Your task to perform on an android device: turn off improve location accuracy Image 0: 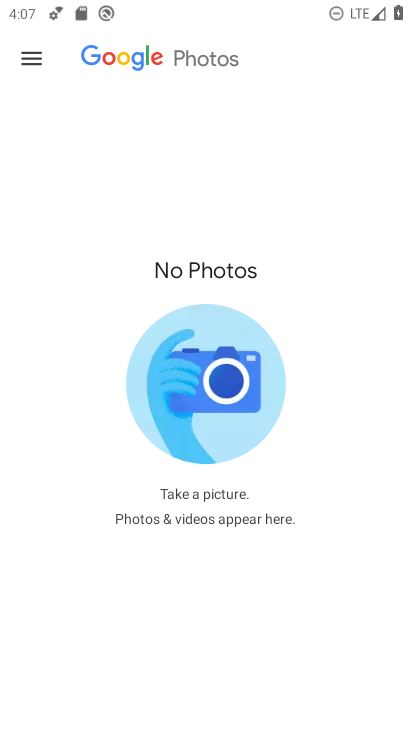
Step 0: press back button
Your task to perform on an android device: turn off improve location accuracy Image 1: 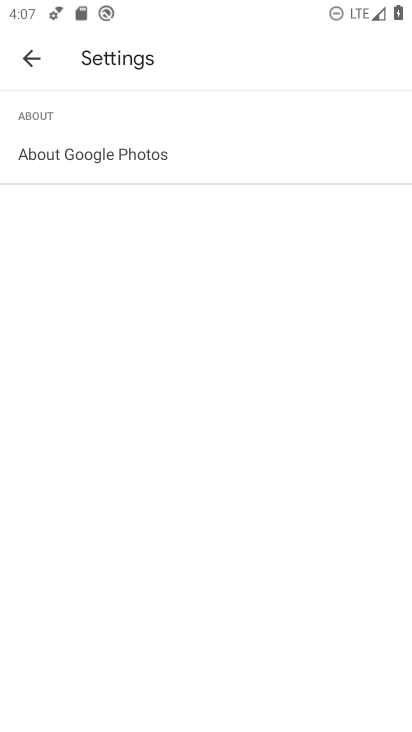
Step 1: press back button
Your task to perform on an android device: turn off improve location accuracy Image 2: 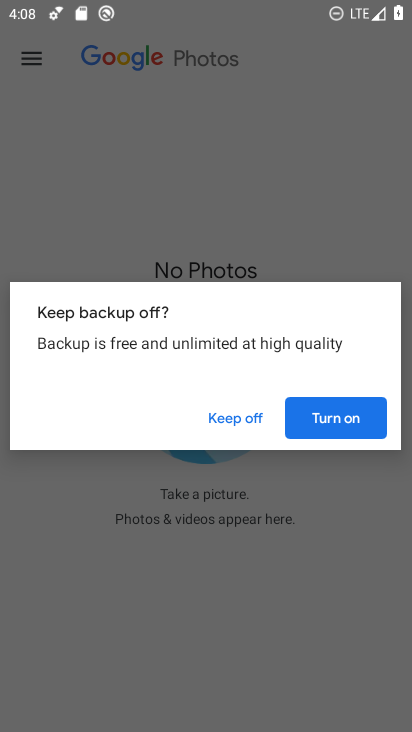
Step 2: click (219, 411)
Your task to perform on an android device: turn off improve location accuracy Image 3: 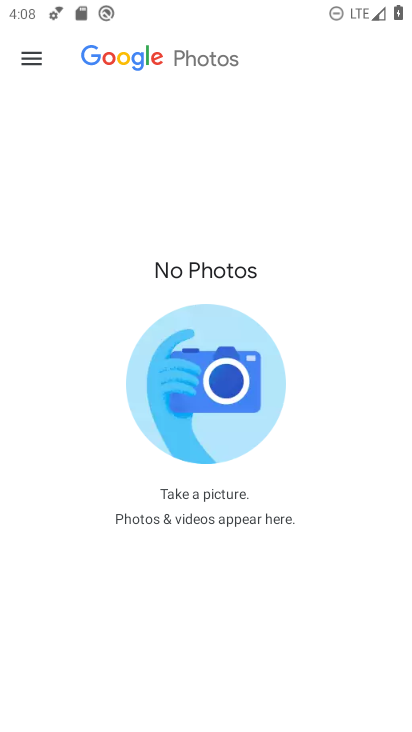
Step 3: press back button
Your task to perform on an android device: turn off improve location accuracy Image 4: 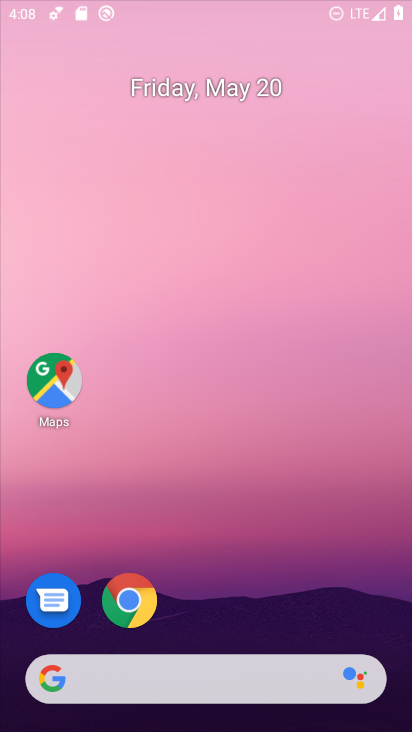
Step 4: press back button
Your task to perform on an android device: turn off improve location accuracy Image 5: 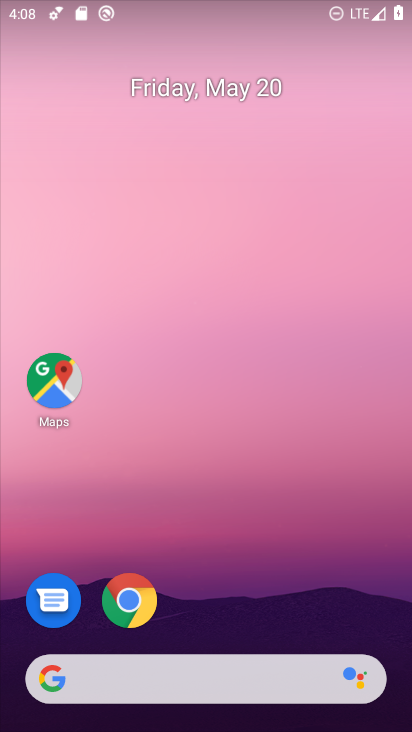
Step 5: drag from (252, 630) to (265, 9)
Your task to perform on an android device: turn off improve location accuracy Image 6: 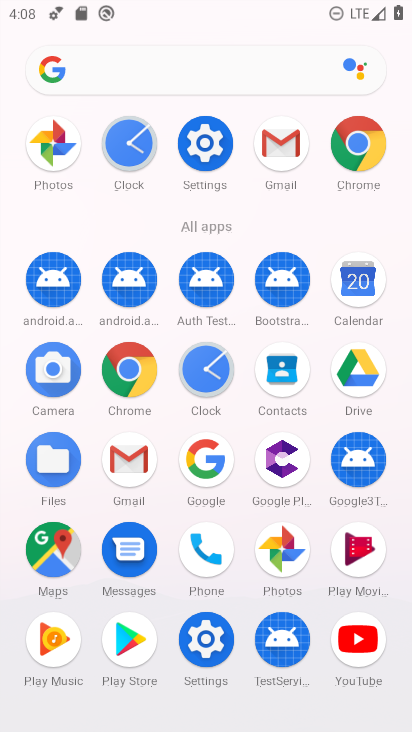
Step 6: click (202, 150)
Your task to perform on an android device: turn off improve location accuracy Image 7: 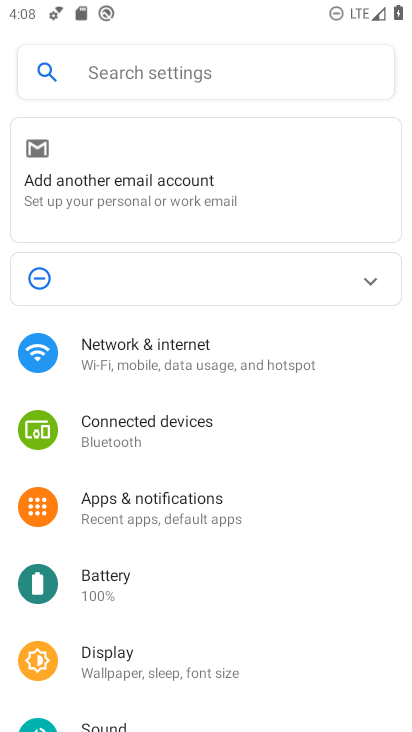
Step 7: drag from (146, 644) to (272, 135)
Your task to perform on an android device: turn off improve location accuracy Image 8: 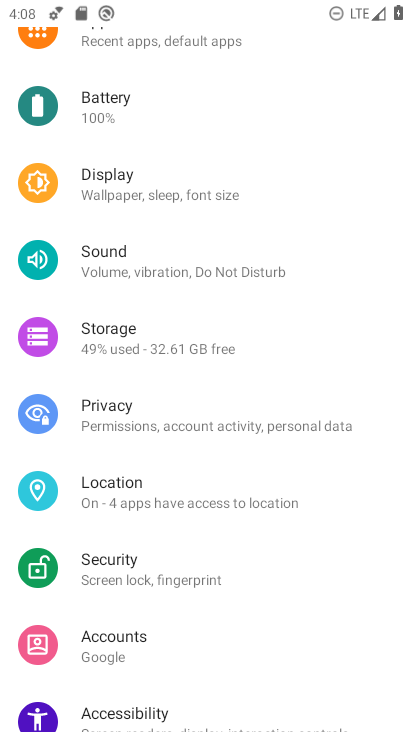
Step 8: click (138, 501)
Your task to perform on an android device: turn off improve location accuracy Image 9: 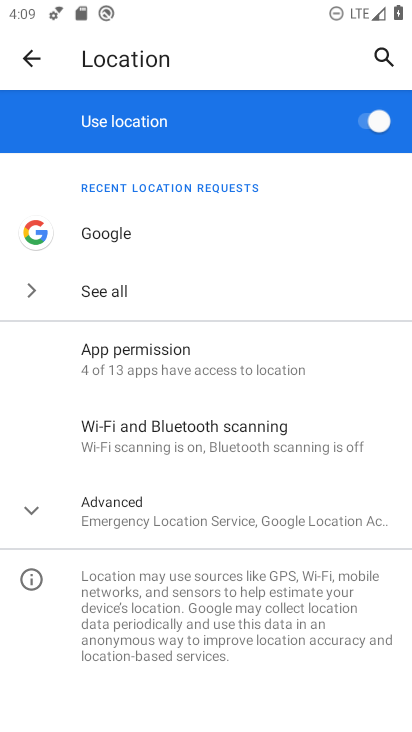
Step 9: click (154, 501)
Your task to perform on an android device: turn off improve location accuracy Image 10: 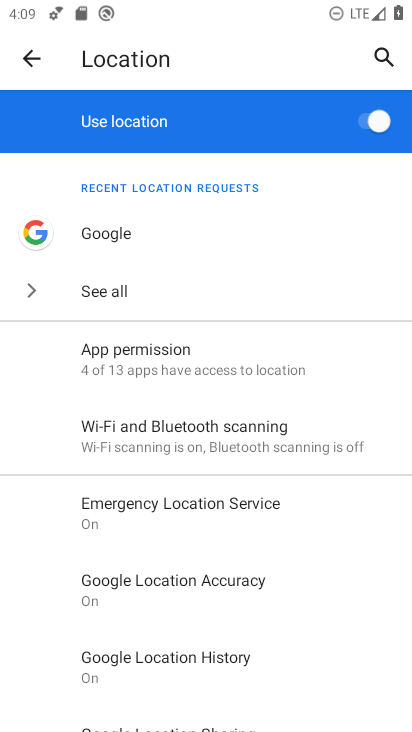
Step 10: click (181, 564)
Your task to perform on an android device: turn off improve location accuracy Image 11: 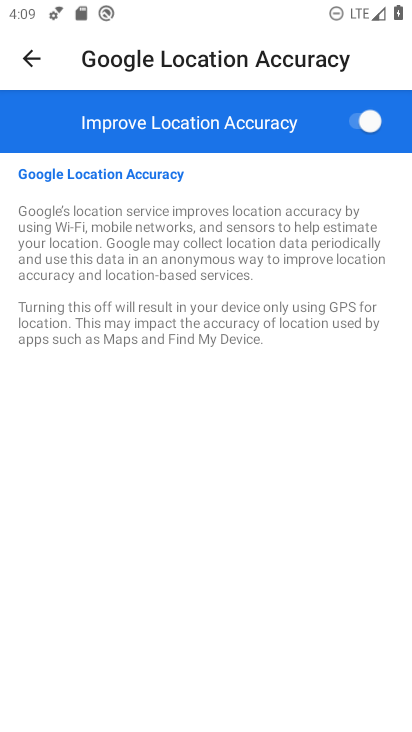
Step 11: click (359, 120)
Your task to perform on an android device: turn off improve location accuracy Image 12: 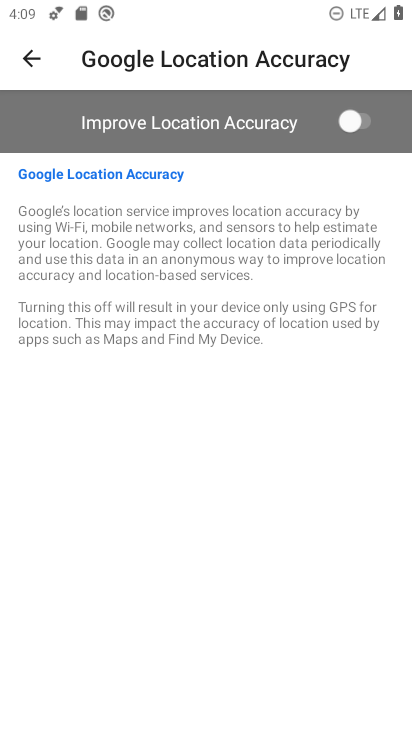
Step 12: task complete